Your task to perform on an android device: How much does the TCL TV cost? Image 0: 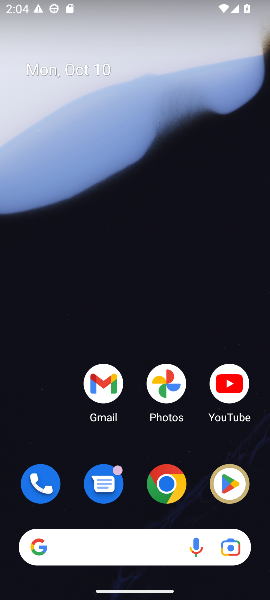
Step 0: click (179, 478)
Your task to perform on an android device: How much does the TCL TV cost? Image 1: 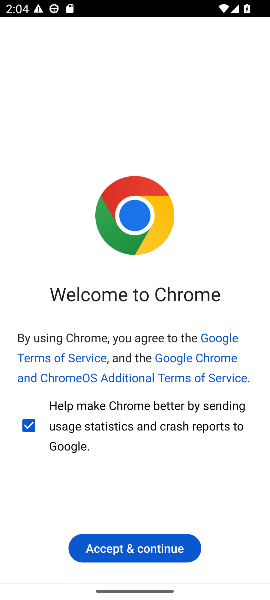
Step 1: click (151, 537)
Your task to perform on an android device: How much does the TCL TV cost? Image 2: 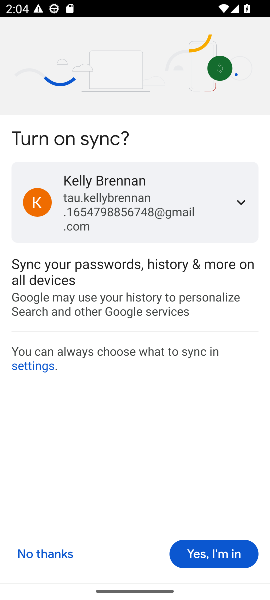
Step 2: click (187, 555)
Your task to perform on an android device: How much does the TCL TV cost? Image 3: 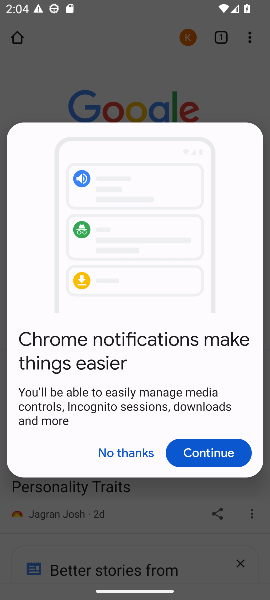
Step 3: click (234, 464)
Your task to perform on an android device: How much does the TCL TV cost? Image 4: 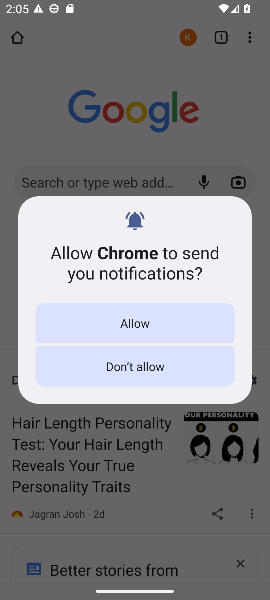
Step 4: click (177, 325)
Your task to perform on an android device: How much does the TCL TV cost? Image 5: 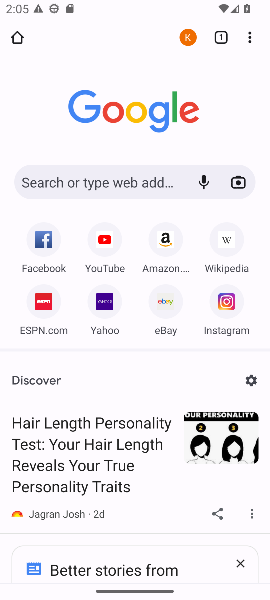
Step 5: click (108, 177)
Your task to perform on an android device: How much does the TCL TV cost? Image 6: 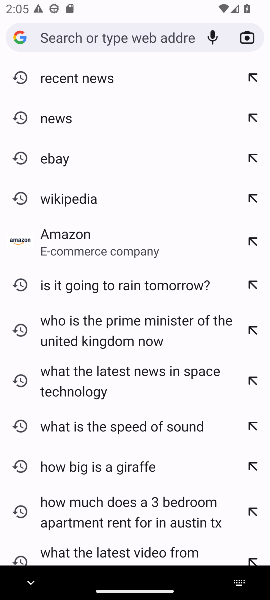
Step 6: type "how much does tcl tv cost"
Your task to perform on an android device: How much does the TCL TV cost? Image 7: 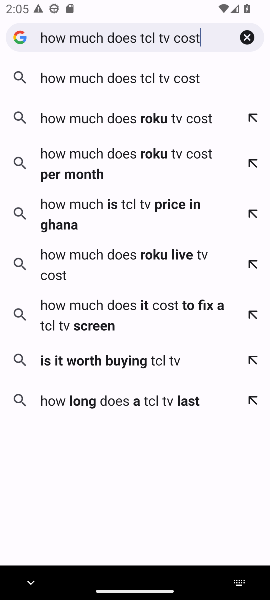
Step 7: click (170, 81)
Your task to perform on an android device: How much does the TCL TV cost? Image 8: 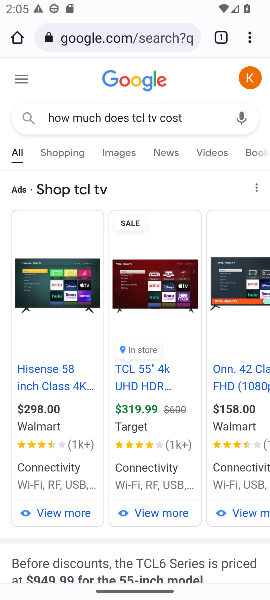
Step 8: task complete